Your task to perform on an android device: Turn off the flashlight Image 0: 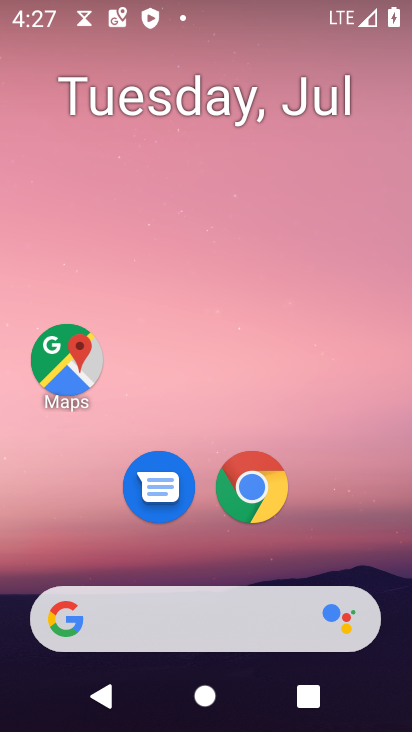
Step 0: drag from (194, 538) to (275, 4)
Your task to perform on an android device: Turn off the flashlight Image 1: 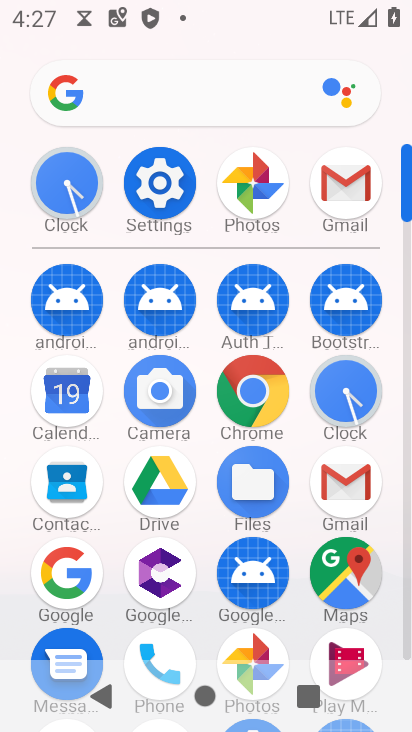
Step 1: click (160, 185)
Your task to perform on an android device: Turn off the flashlight Image 2: 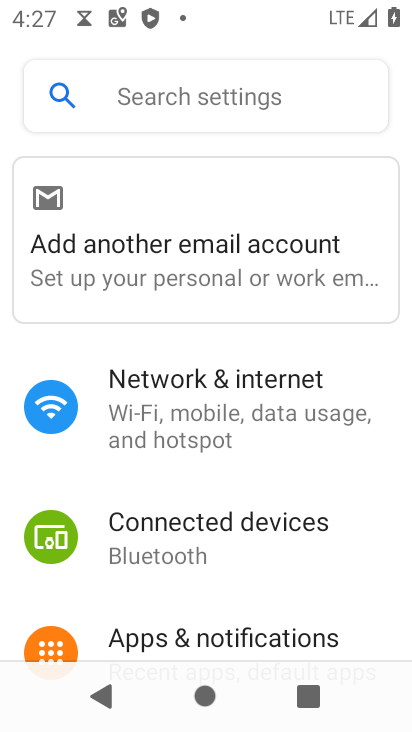
Step 2: click (141, 103)
Your task to perform on an android device: Turn off the flashlight Image 3: 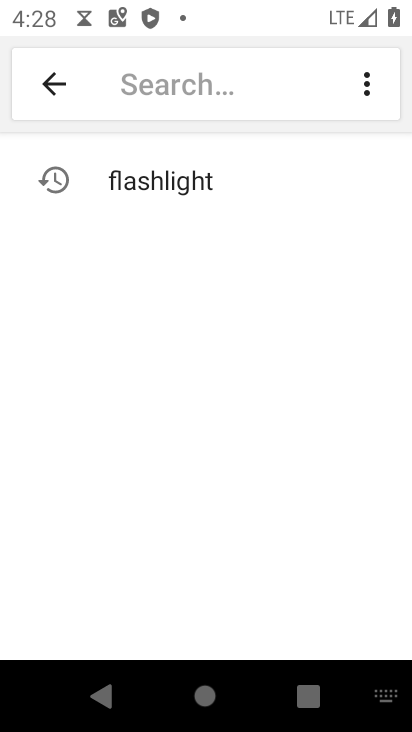
Step 3: type "flashlight"
Your task to perform on an android device: Turn off the flashlight Image 4: 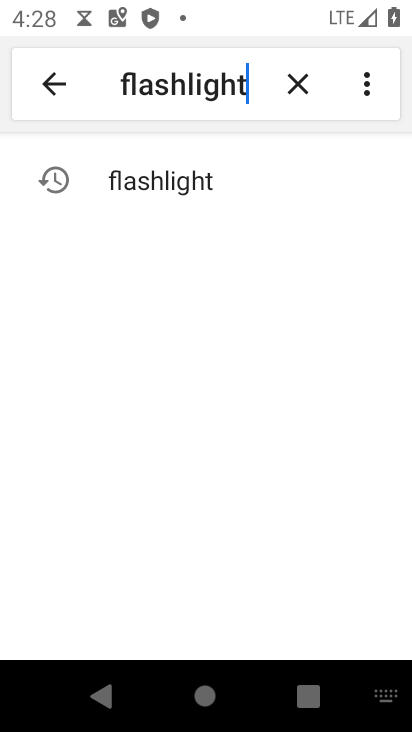
Step 4: click (183, 184)
Your task to perform on an android device: Turn off the flashlight Image 5: 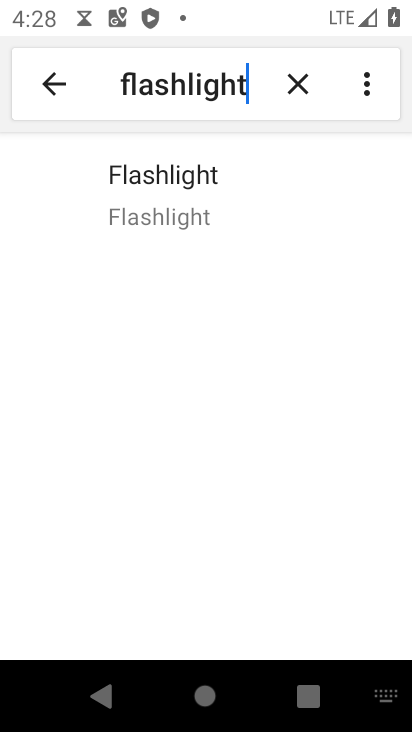
Step 5: task complete